Your task to perform on an android device: change text size in settings app Image 0: 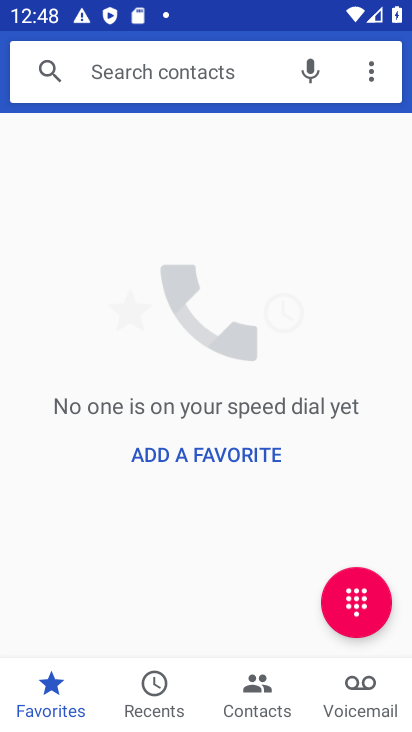
Step 0: press home button
Your task to perform on an android device: change text size in settings app Image 1: 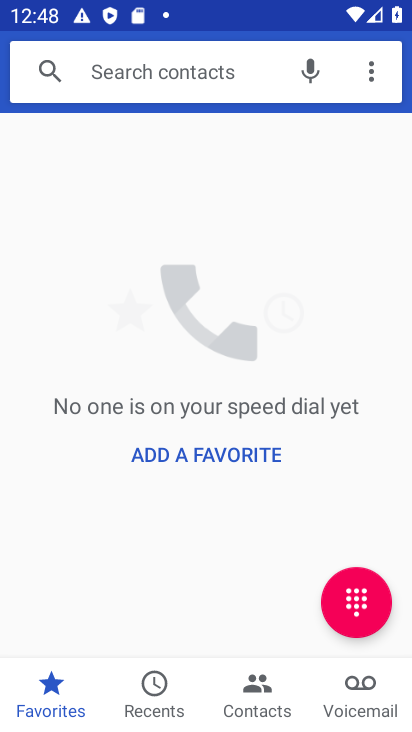
Step 1: press home button
Your task to perform on an android device: change text size in settings app Image 2: 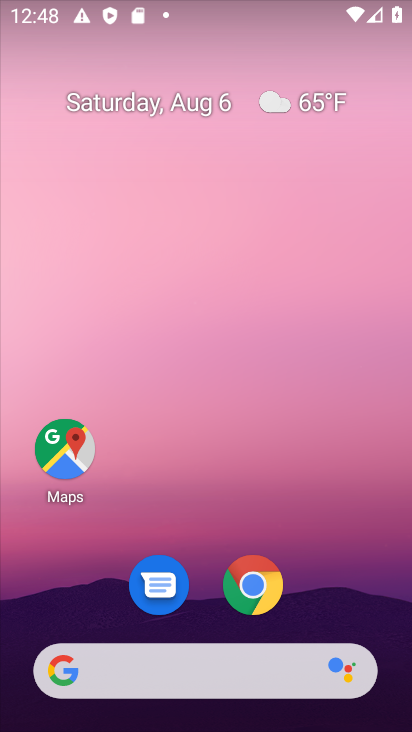
Step 2: drag from (205, 514) to (252, 0)
Your task to perform on an android device: change text size in settings app Image 3: 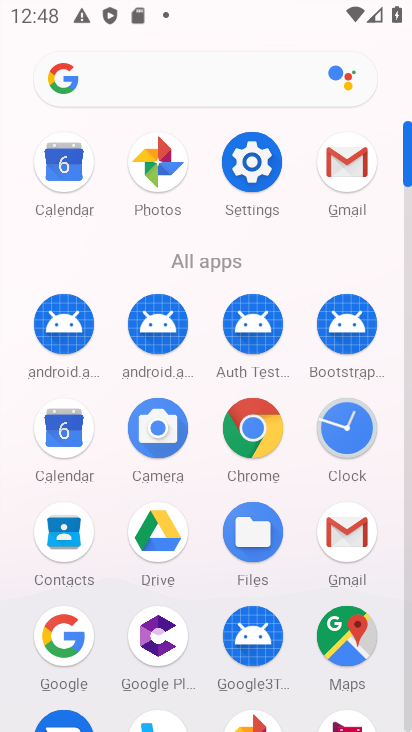
Step 3: click (251, 168)
Your task to perform on an android device: change text size in settings app Image 4: 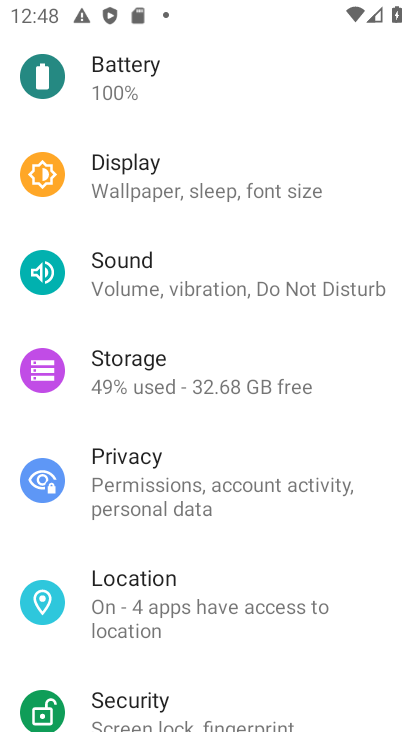
Step 4: click (210, 178)
Your task to perform on an android device: change text size in settings app Image 5: 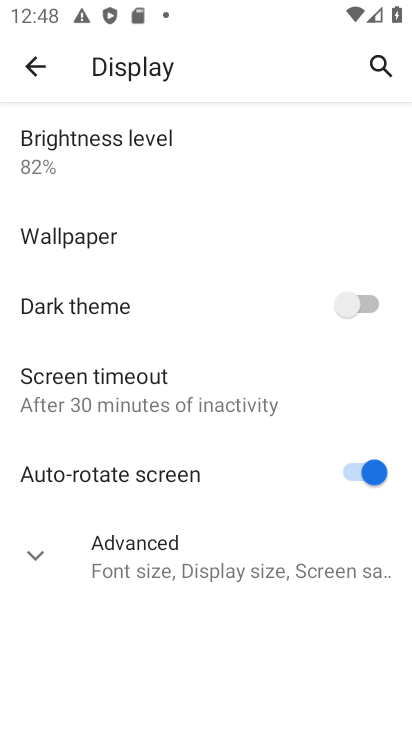
Step 5: click (32, 542)
Your task to perform on an android device: change text size in settings app Image 6: 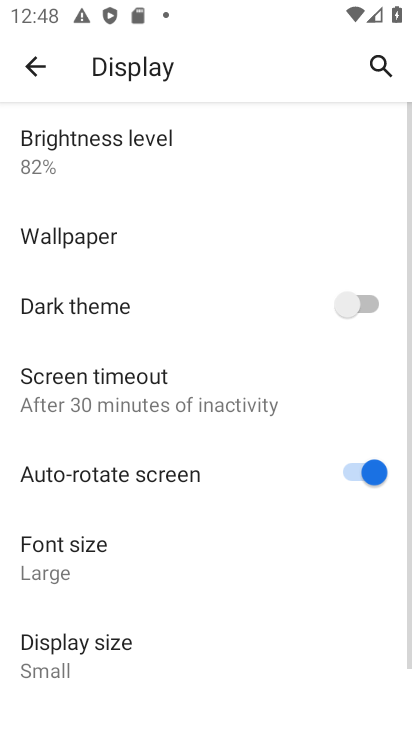
Step 6: click (124, 557)
Your task to perform on an android device: change text size in settings app Image 7: 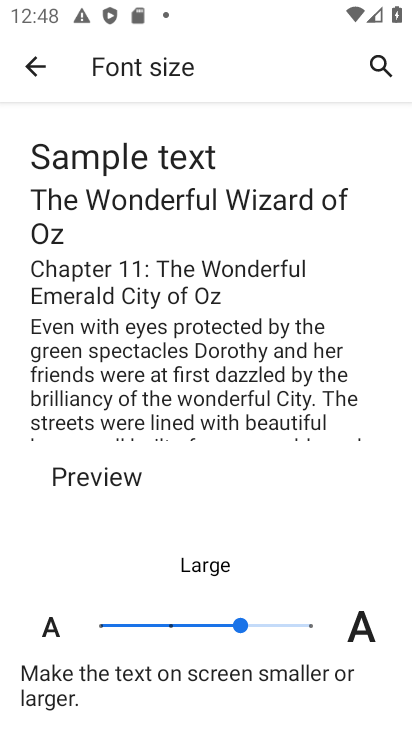
Step 7: click (169, 622)
Your task to perform on an android device: change text size in settings app Image 8: 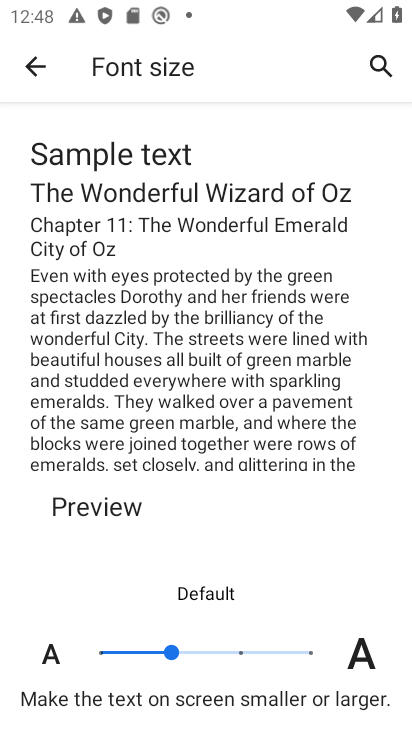
Step 8: task complete